Your task to perform on an android device: open sync settings in chrome Image 0: 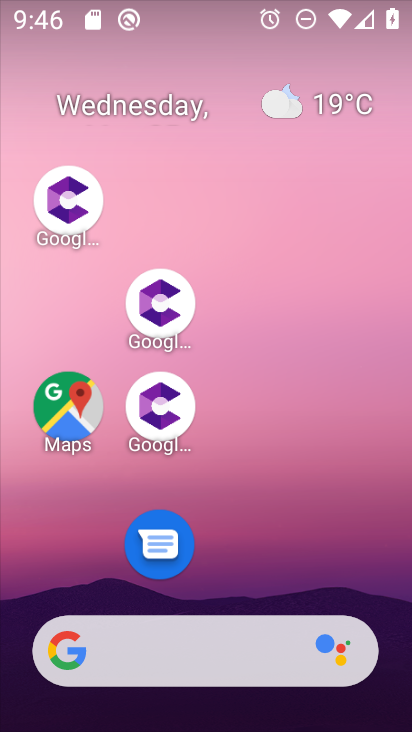
Step 0: drag from (293, 501) to (251, 19)
Your task to perform on an android device: open sync settings in chrome Image 1: 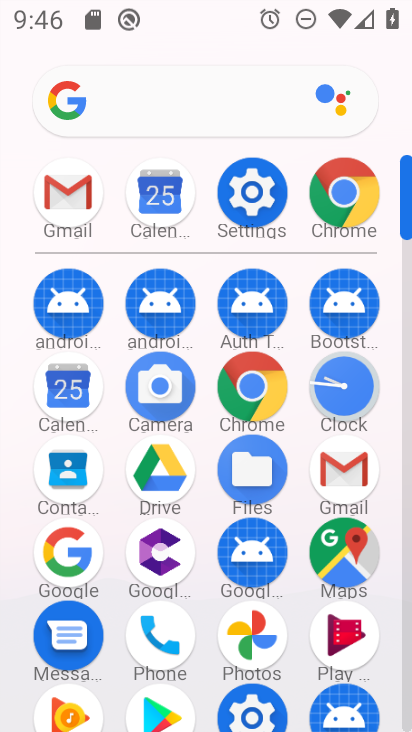
Step 1: click (341, 200)
Your task to perform on an android device: open sync settings in chrome Image 2: 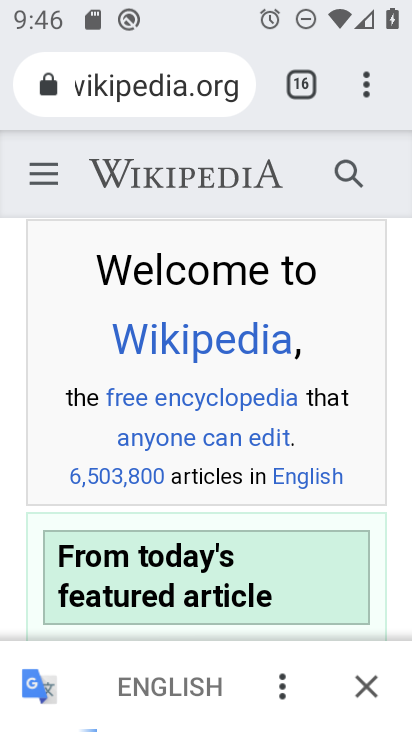
Step 2: click (367, 81)
Your task to perform on an android device: open sync settings in chrome Image 3: 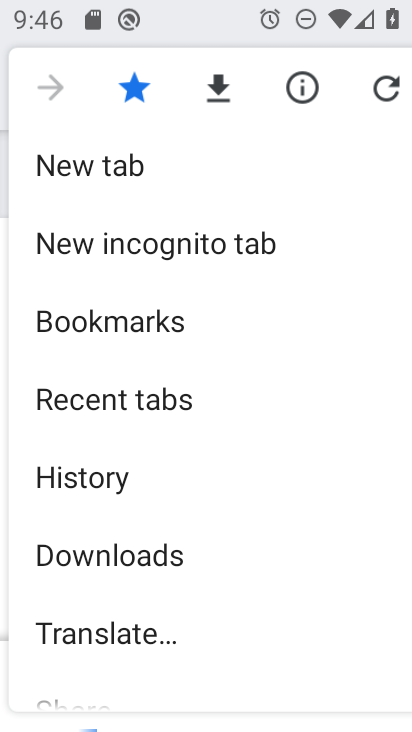
Step 3: drag from (242, 523) to (247, 6)
Your task to perform on an android device: open sync settings in chrome Image 4: 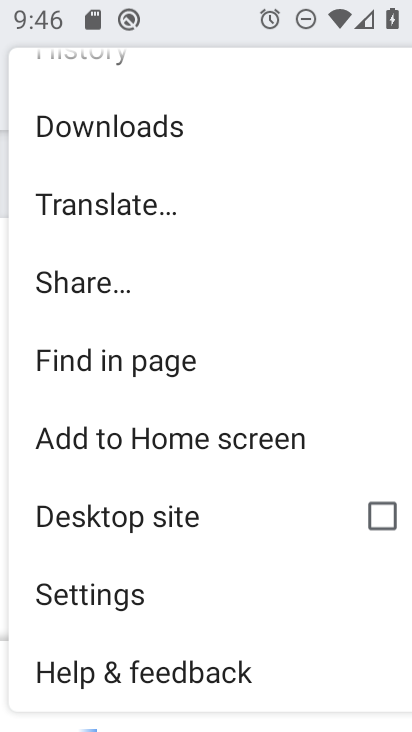
Step 4: click (91, 600)
Your task to perform on an android device: open sync settings in chrome Image 5: 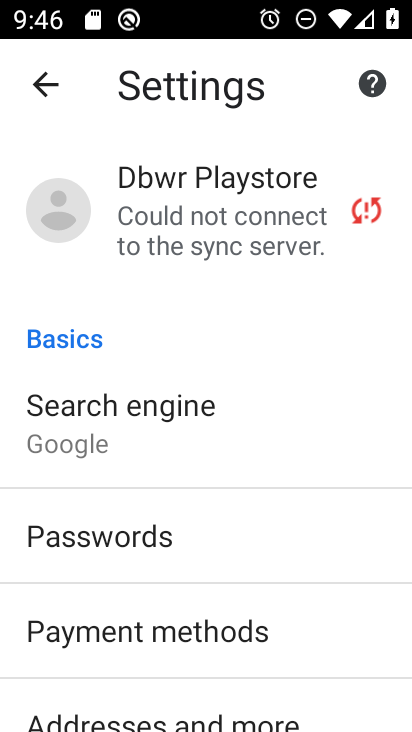
Step 5: click (185, 231)
Your task to perform on an android device: open sync settings in chrome Image 6: 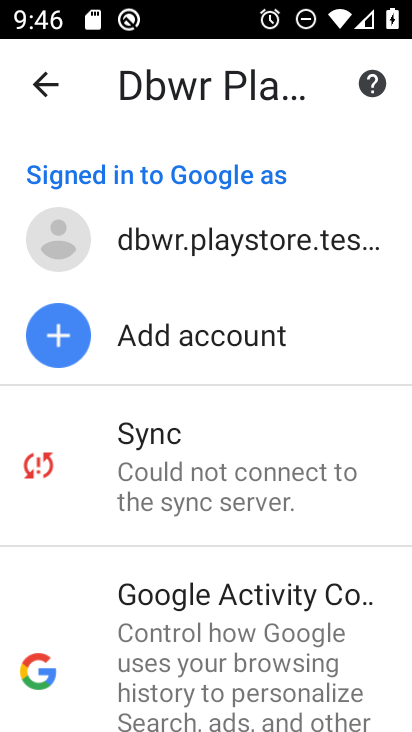
Step 6: click (164, 426)
Your task to perform on an android device: open sync settings in chrome Image 7: 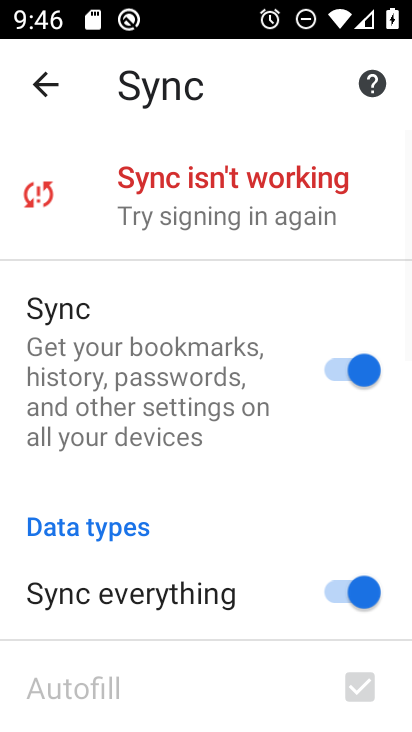
Step 7: task complete